Your task to perform on an android device: Open battery settings Image 0: 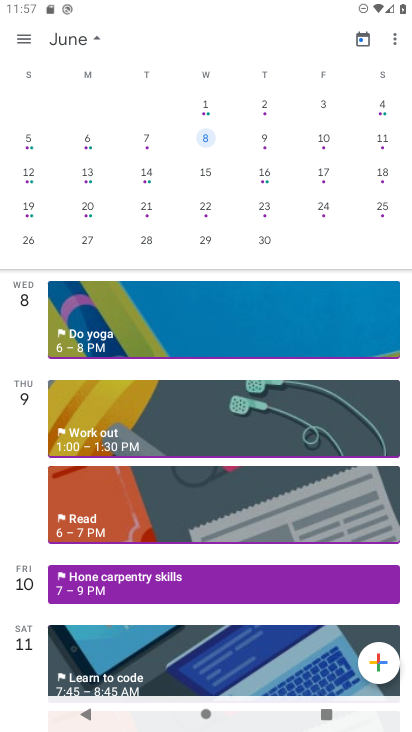
Step 0: press home button
Your task to perform on an android device: Open battery settings Image 1: 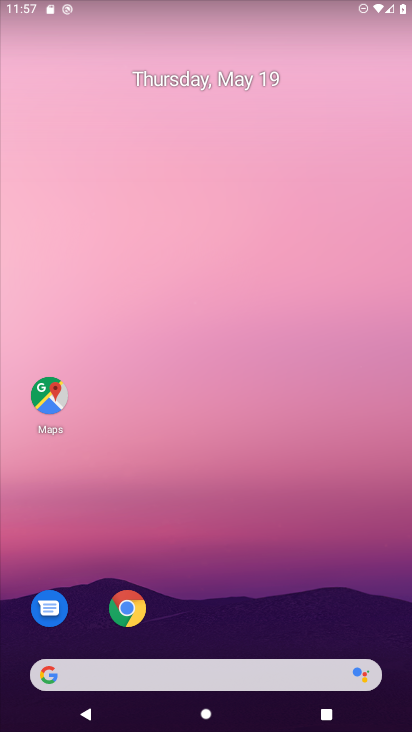
Step 1: drag from (412, 633) to (385, 83)
Your task to perform on an android device: Open battery settings Image 2: 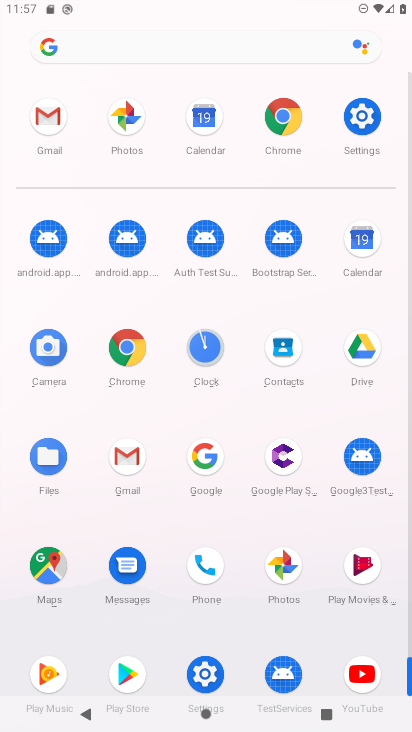
Step 2: click (376, 109)
Your task to perform on an android device: Open battery settings Image 3: 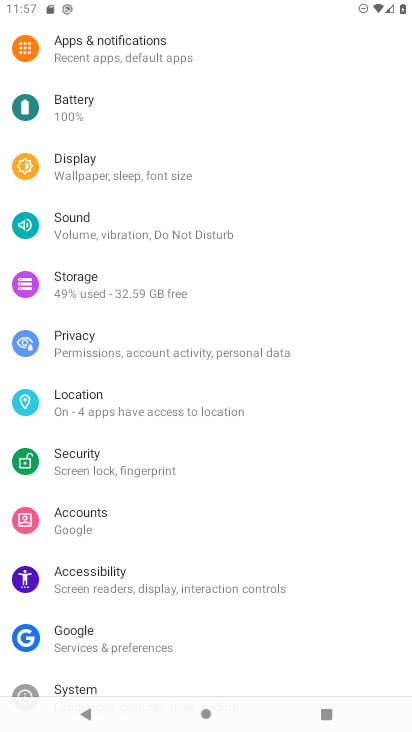
Step 3: click (189, 105)
Your task to perform on an android device: Open battery settings Image 4: 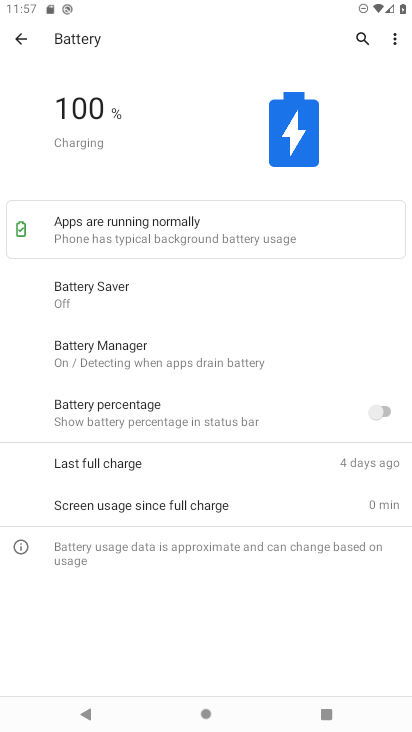
Step 4: task complete